Your task to perform on an android device: set default search engine in the chrome app Image 0: 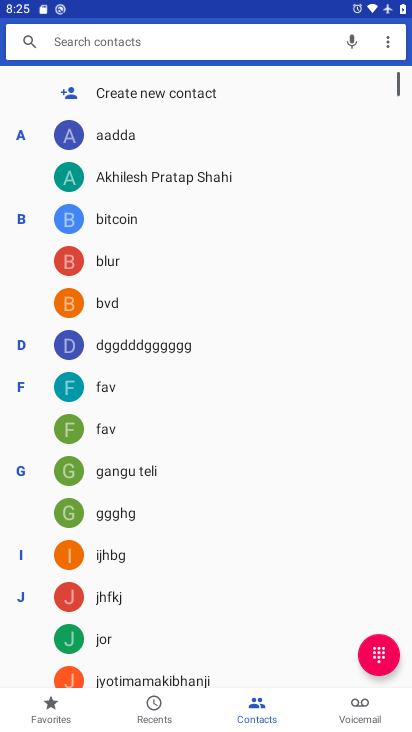
Step 0: press home button
Your task to perform on an android device: set default search engine in the chrome app Image 1: 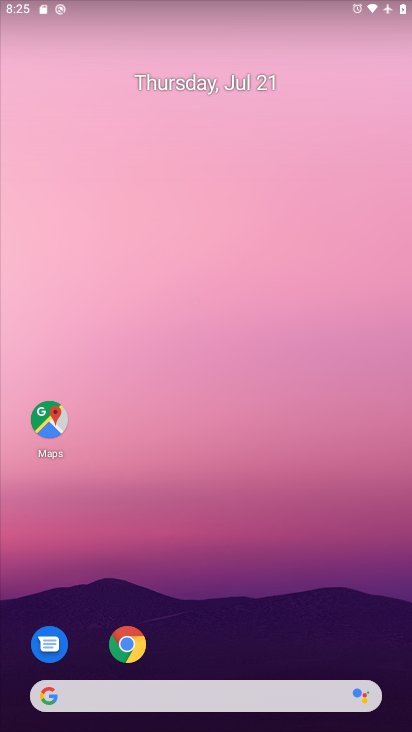
Step 1: click (145, 639)
Your task to perform on an android device: set default search engine in the chrome app Image 2: 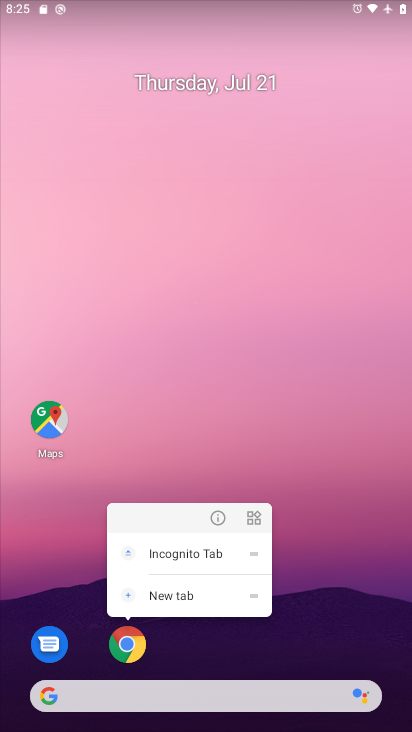
Step 2: click (134, 652)
Your task to perform on an android device: set default search engine in the chrome app Image 3: 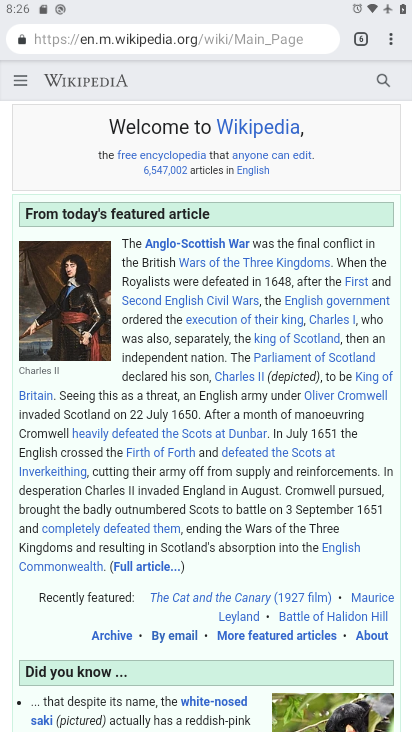
Step 3: click (403, 37)
Your task to perform on an android device: set default search engine in the chrome app Image 4: 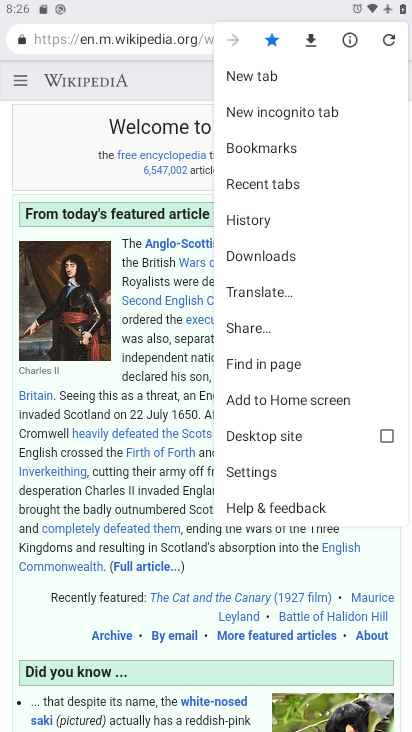
Step 4: click (272, 473)
Your task to perform on an android device: set default search engine in the chrome app Image 5: 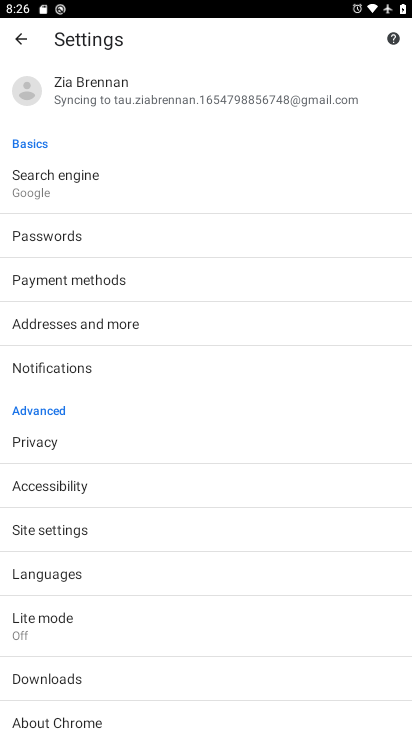
Step 5: click (101, 182)
Your task to perform on an android device: set default search engine in the chrome app Image 6: 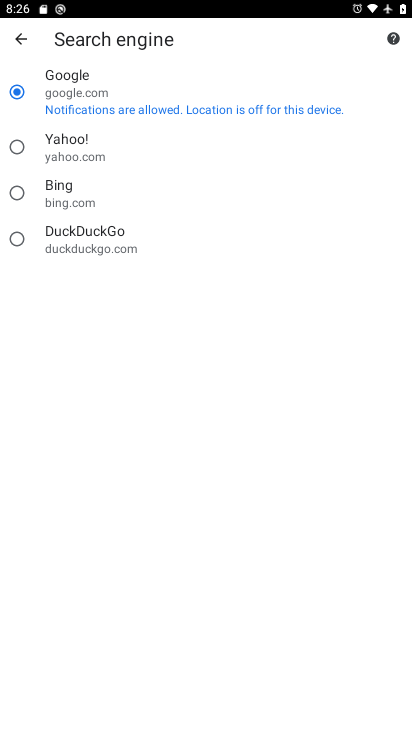
Step 6: click (67, 207)
Your task to perform on an android device: set default search engine in the chrome app Image 7: 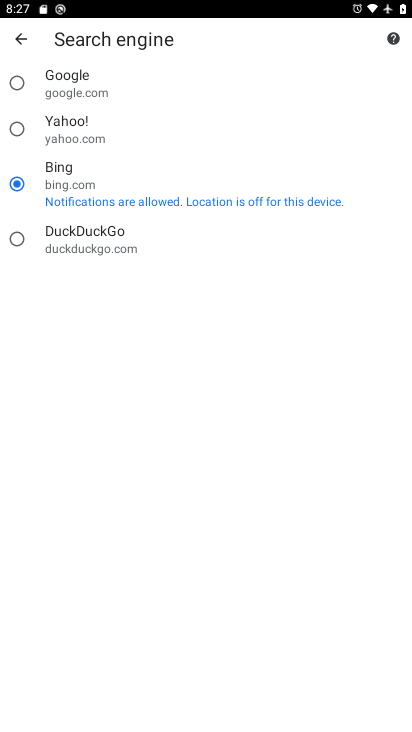
Step 7: task complete